Your task to perform on an android device: turn on improve location accuracy Image 0: 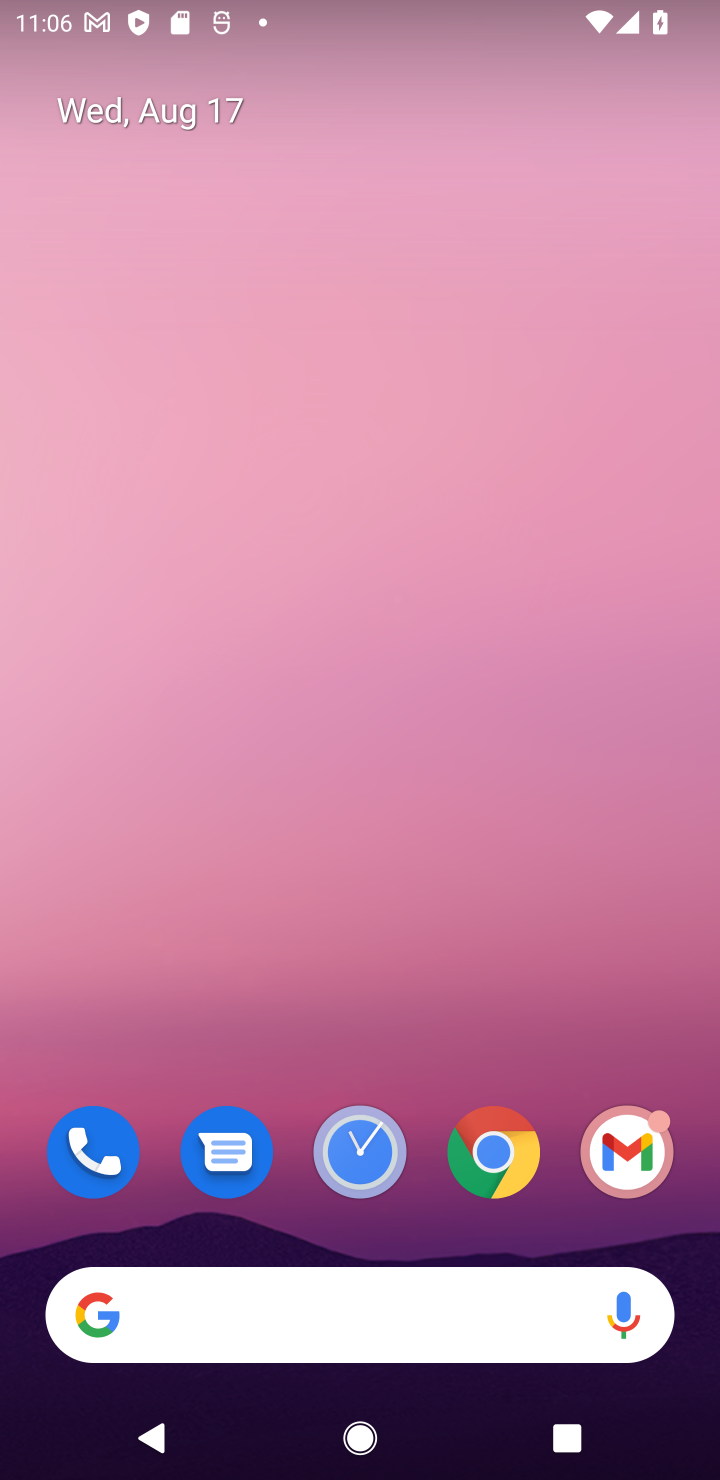
Step 0: drag from (572, 1072) to (683, 899)
Your task to perform on an android device: turn on improve location accuracy Image 1: 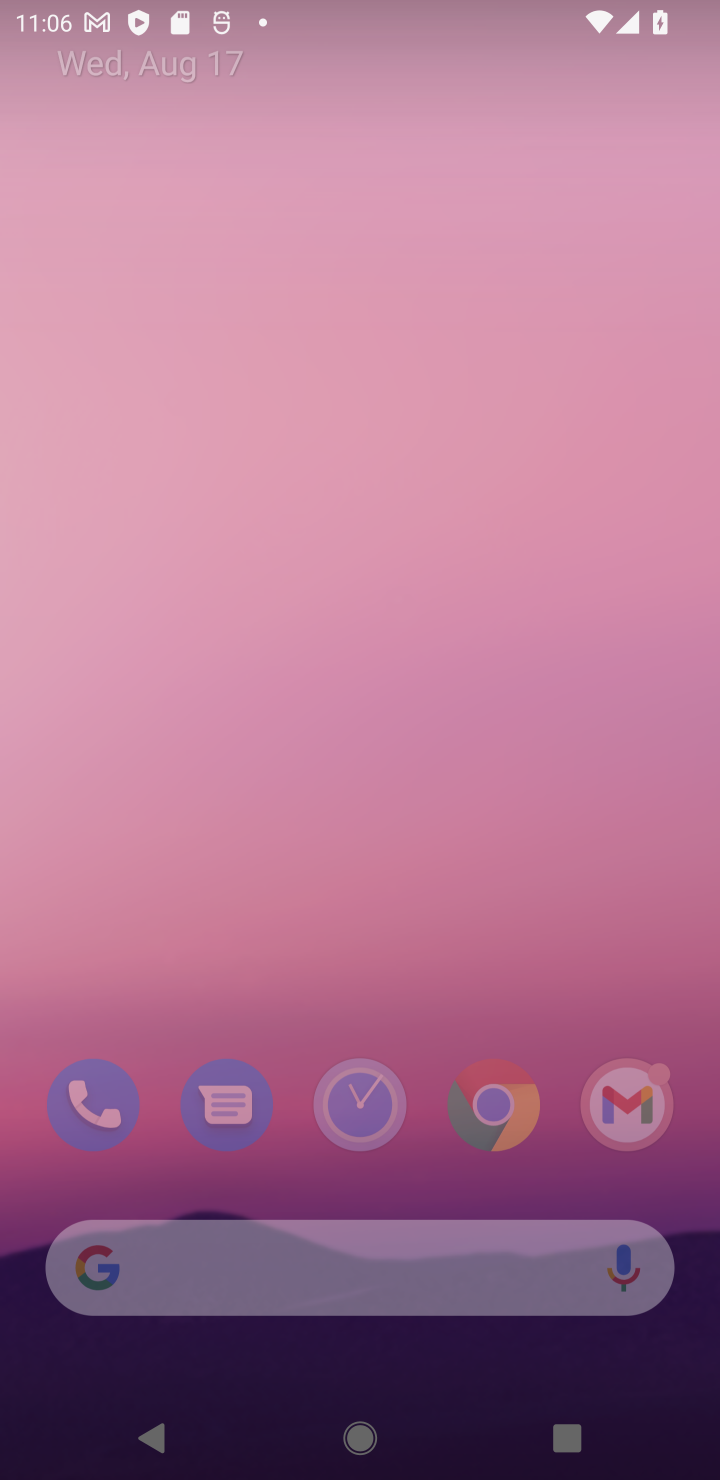
Step 1: click (627, 923)
Your task to perform on an android device: turn on improve location accuracy Image 2: 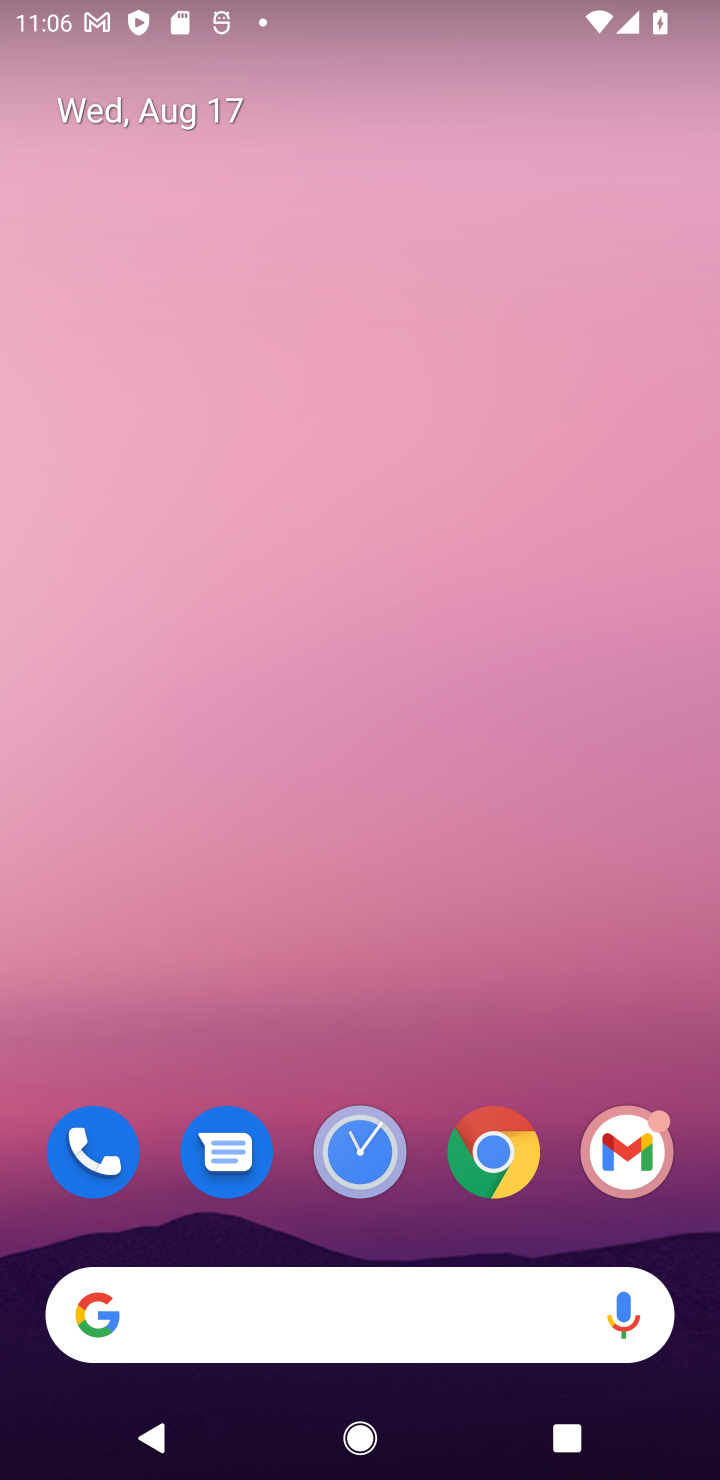
Step 2: drag from (583, 1029) to (315, 1)
Your task to perform on an android device: turn on improve location accuracy Image 3: 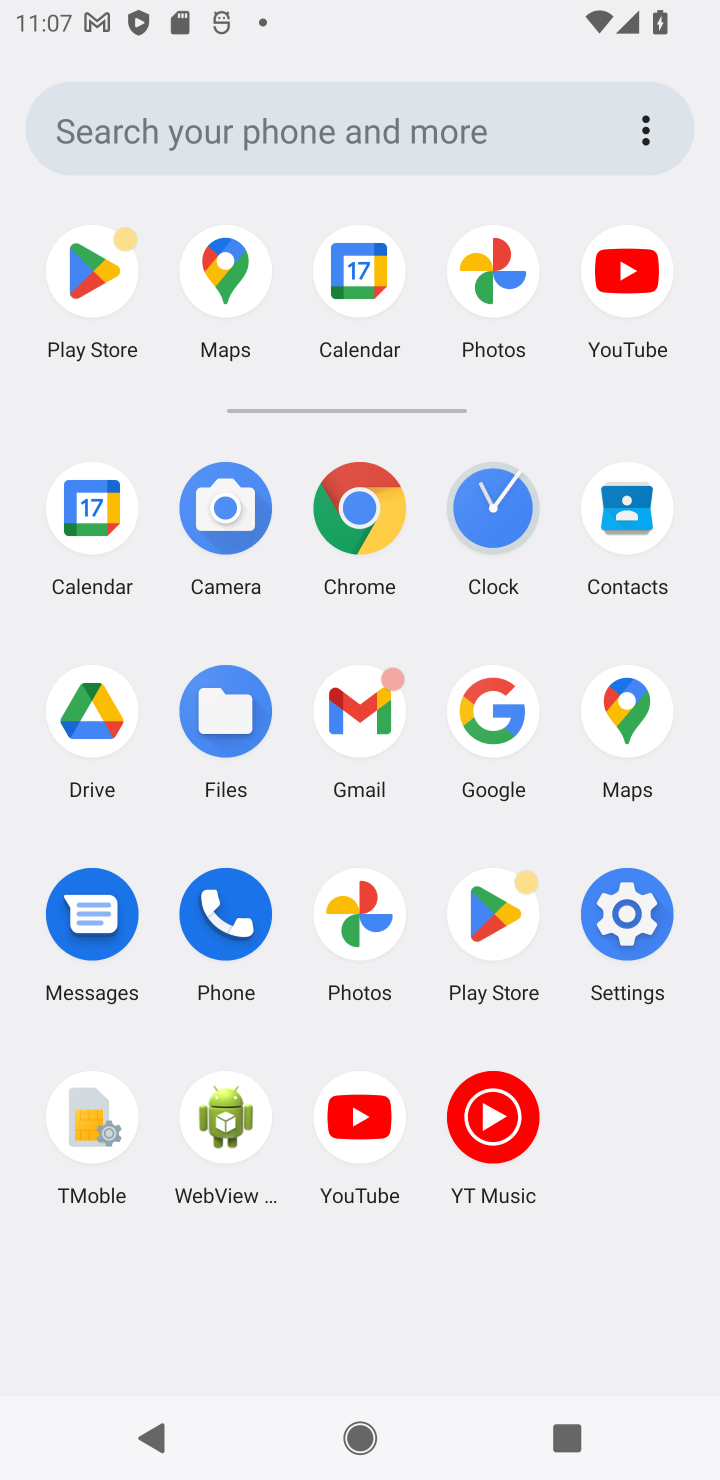
Step 3: click (628, 885)
Your task to perform on an android device: turn on improve location accuracy Image 4: 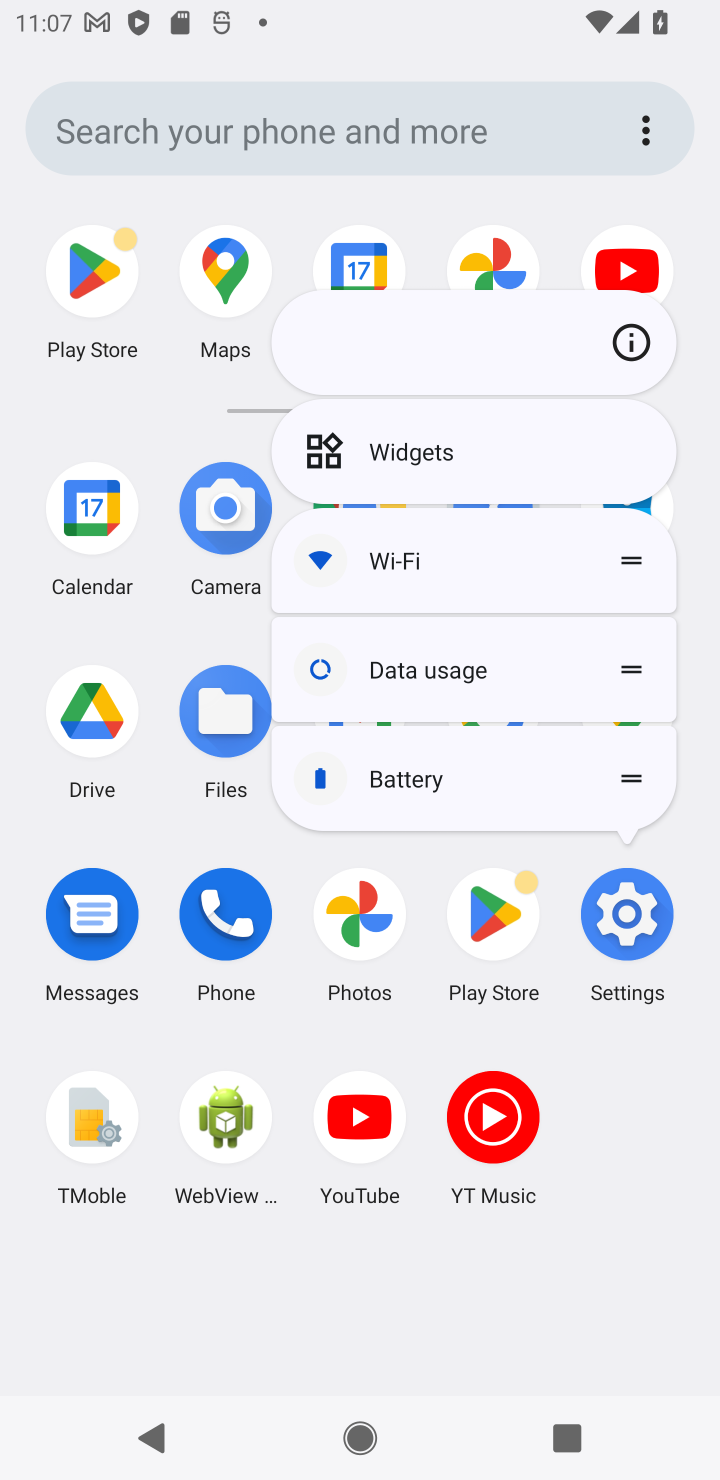
Step 4: click (628, 885)
Your task to perform on an android device: turn on improve location accuracy Image 5: 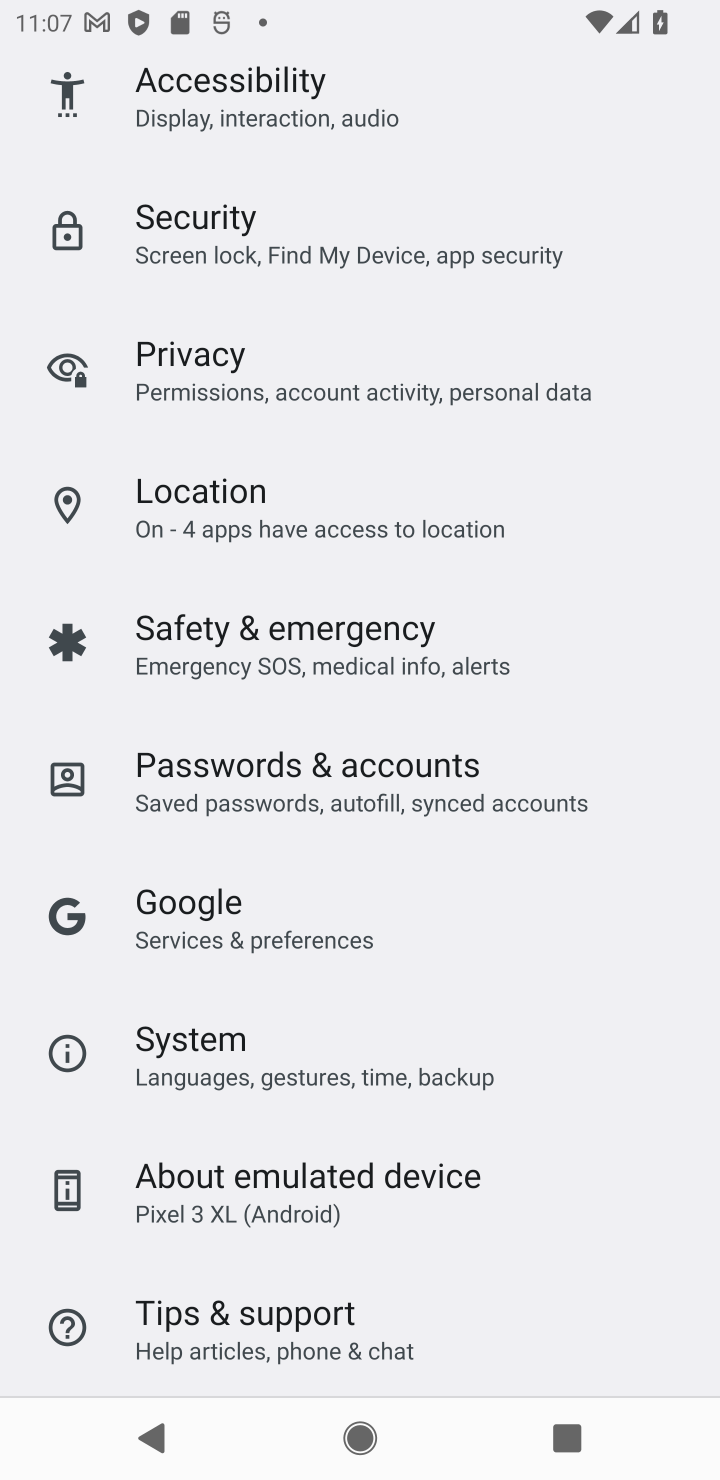
Step 5: click (277, 510)
Your task to perform on an android device: turn on improve location accuracy Image 6: 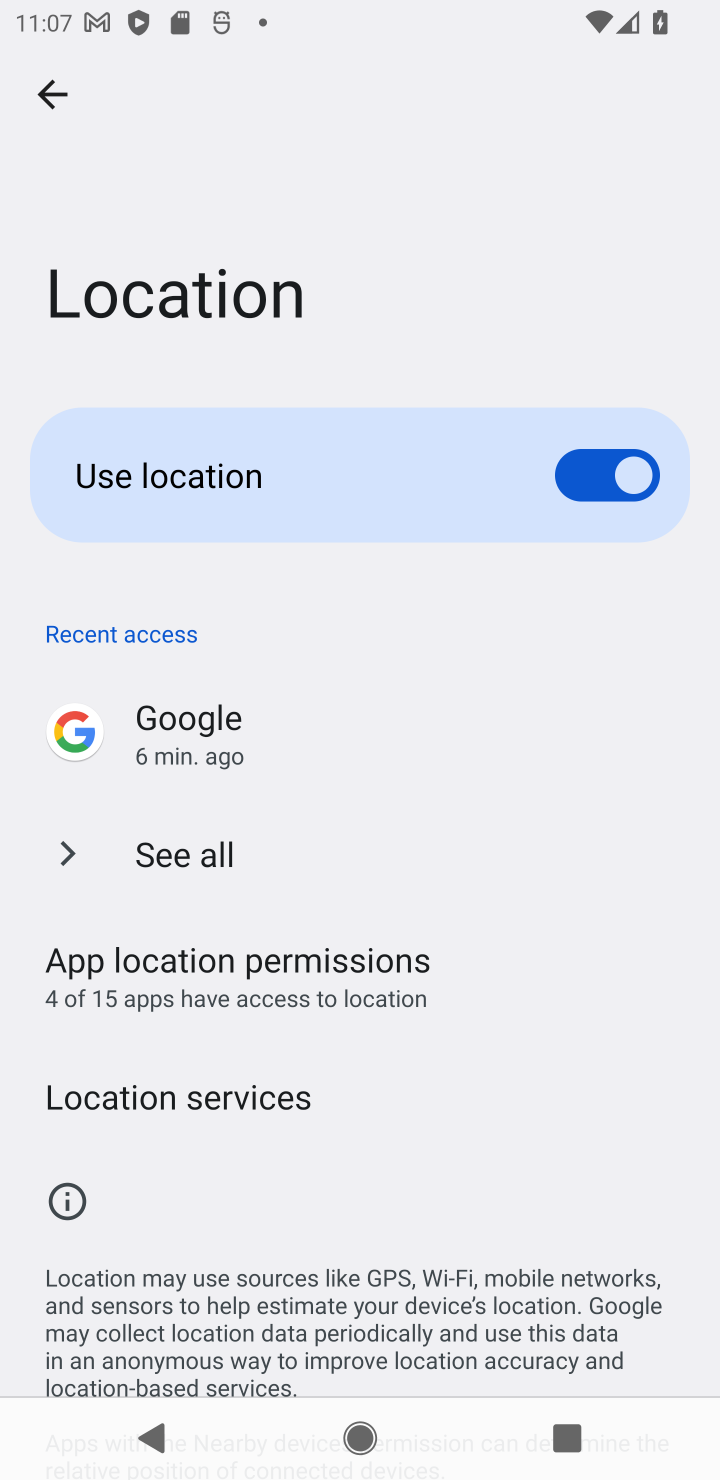
Step 6: click (214, 1094)
Your task to perform on an android device: turn on improve location accuracy Image 7: 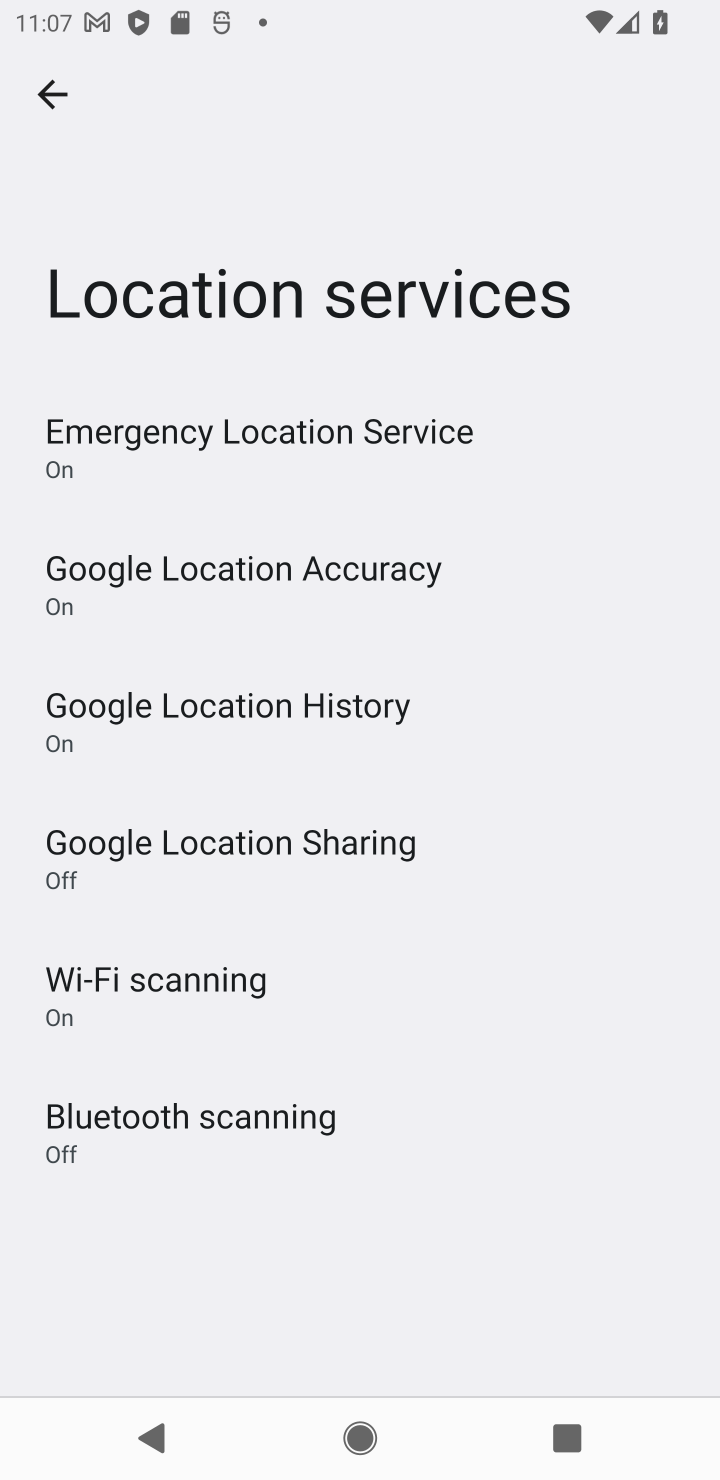
Step 7: click (383, 596)
Your task to perform on an android device: turn on improve location accuracy Image 8: 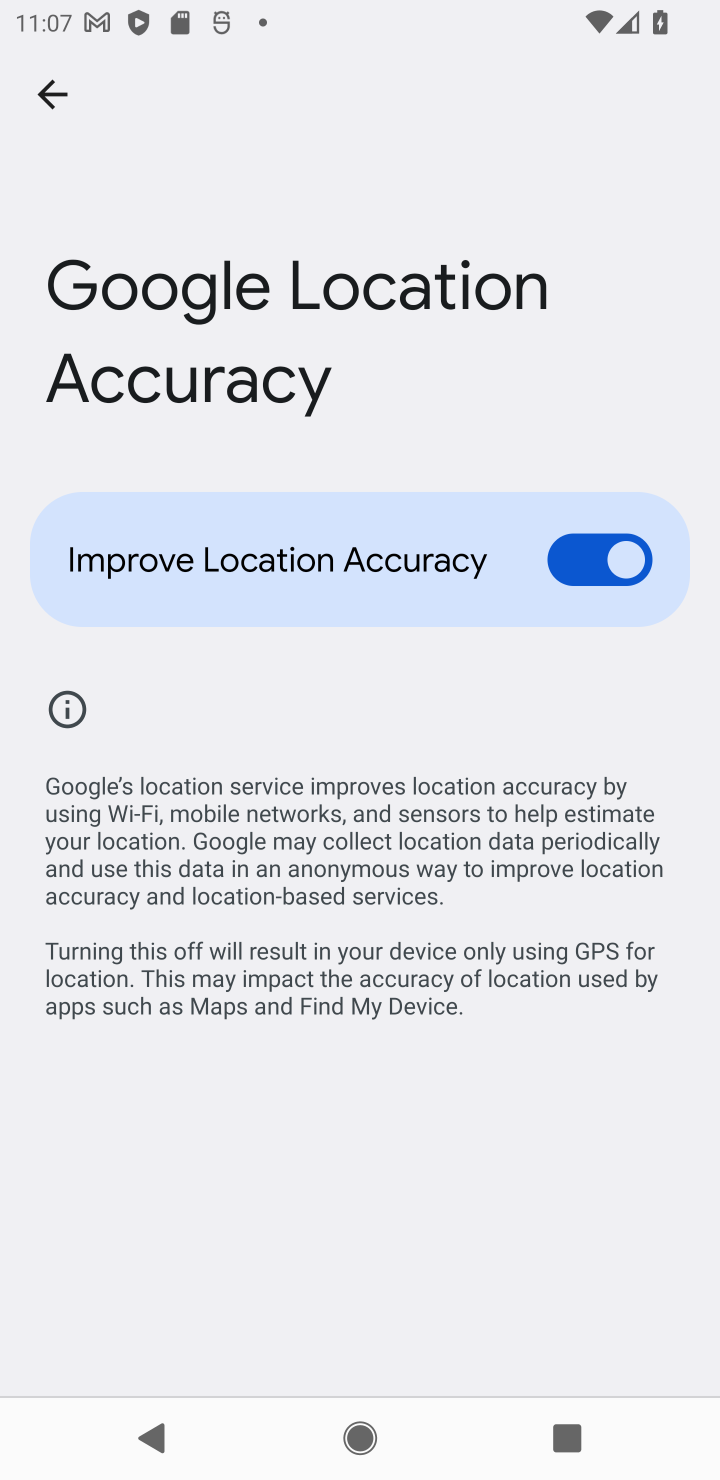
Step 8: task complete